Your task to perform on an android device: check data usage Image 0: 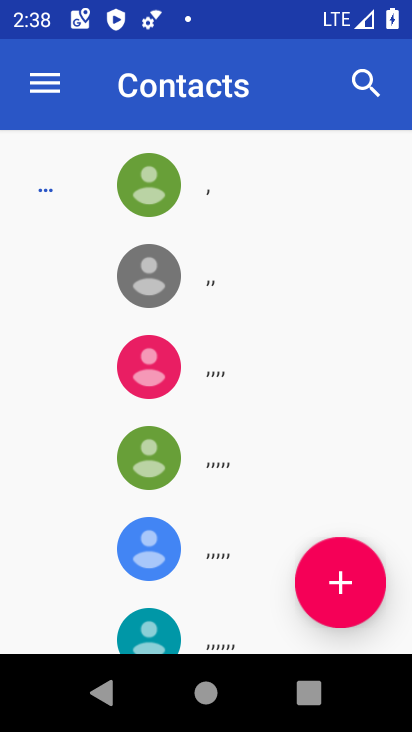
Step 0: press home button
Your task to perform on an android device: check data usage Image 1: 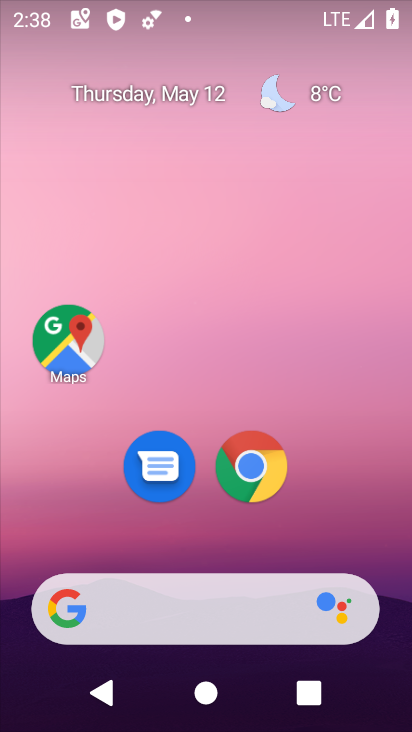
Step 1: drag from (321, 532) to (150, 104)
Your task to perform on an android device: check data usage Image 2: 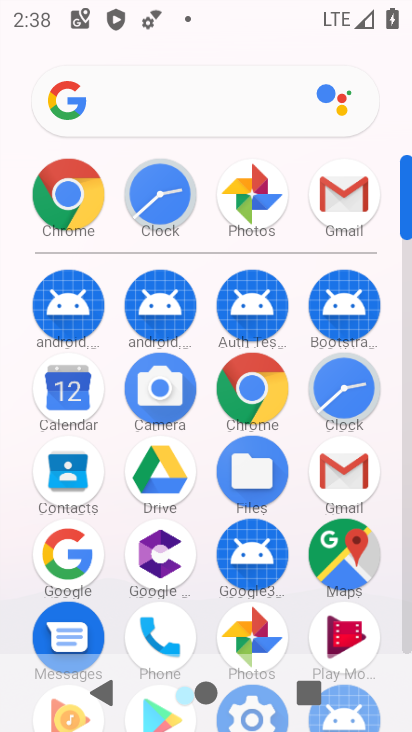
Step 2: drag from (197, 618) to (180, 208)
Your task to perform on an android device: check data usage Image 3: 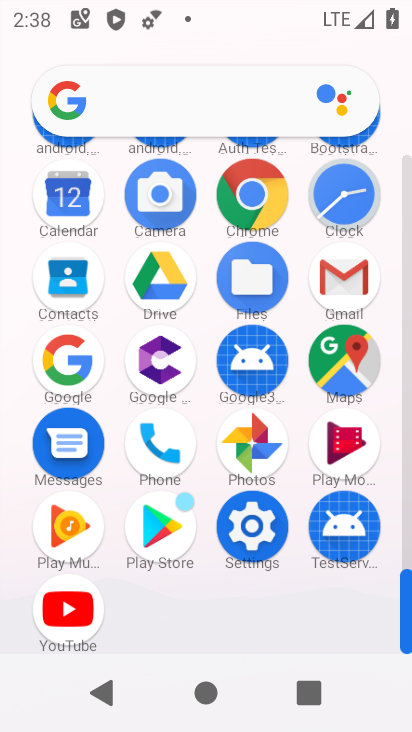
Step 3: click (255, 546)
Your task to perform on an android device: check data usage Image 4: 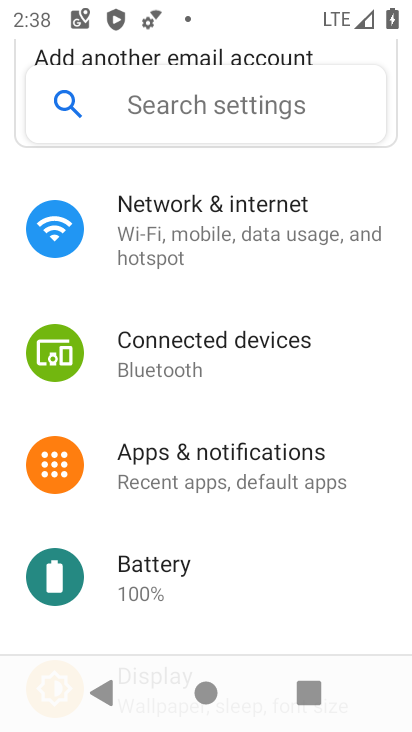
Step 4: click (236, 249)
Your task to perform on an android device: check data usage Image 5: 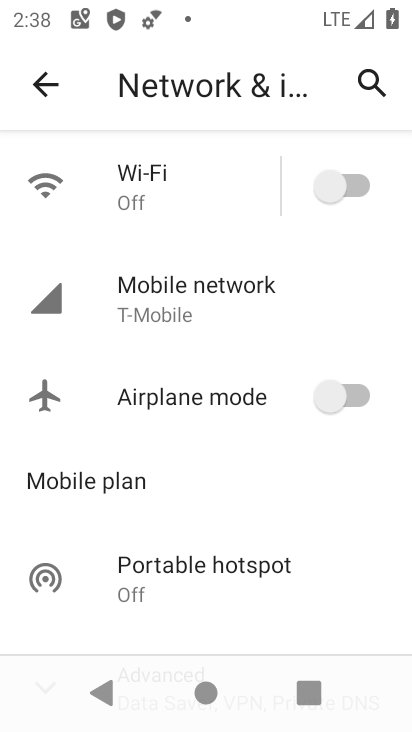
Step 5: click (140, 297)
Your task to perform on an android device: check data usage Image 6: 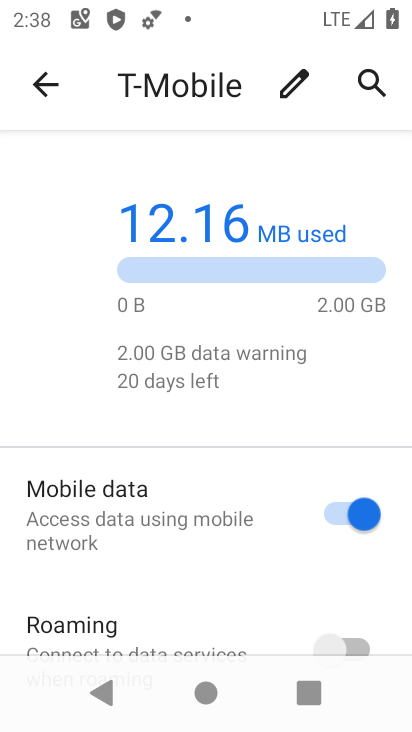
Step 6: task complete